Your task to perform on an android device: Open Google Image 0: 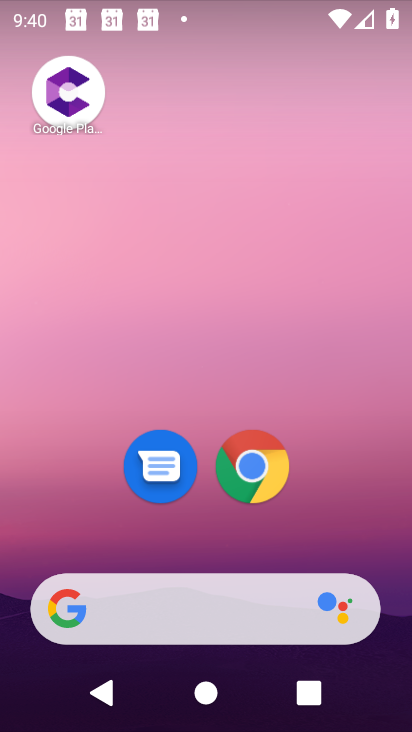
Step 0: drag from (318, 497) to (348, 51)
Your task to perform on an android device: Open Google Image 1: 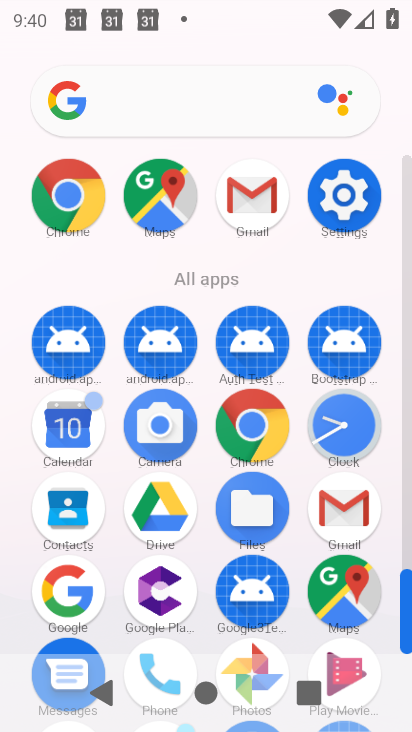
Step 1: click (71, 586)
Your task to perform on an android device: Open Google Image 2: 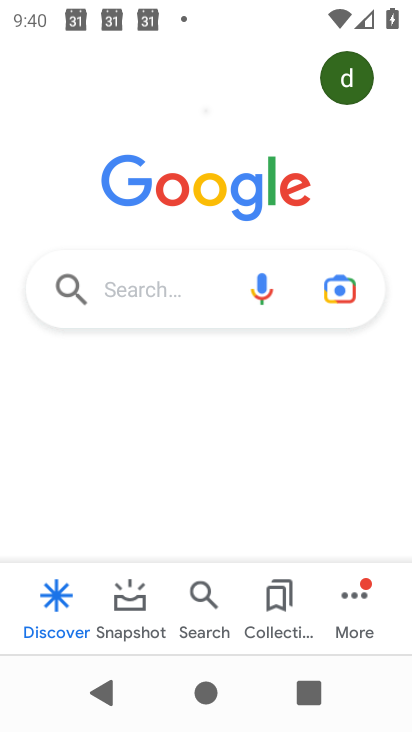
Step 2: task complete